Your task to perform on an android device: empty trash in the gmail app Image 0: 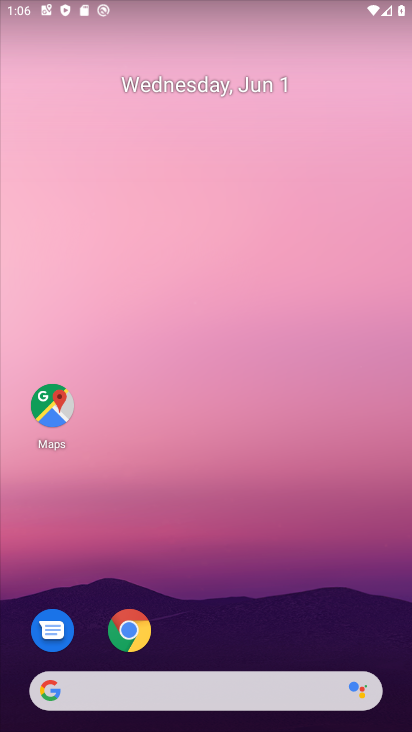
Step 0: press home button
Your task to perform on an android device: empty trash in the gmail app Image 1: 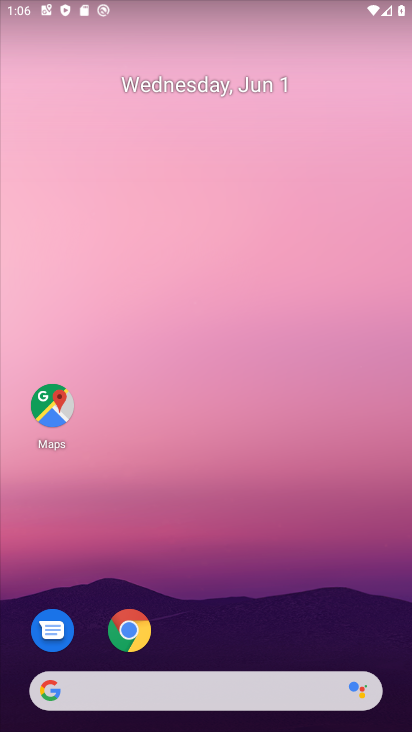
Step 1: drag from (213, 625) to (261, 51)
Your task to perform on an android device: empty trash in the gmail app Image 2: 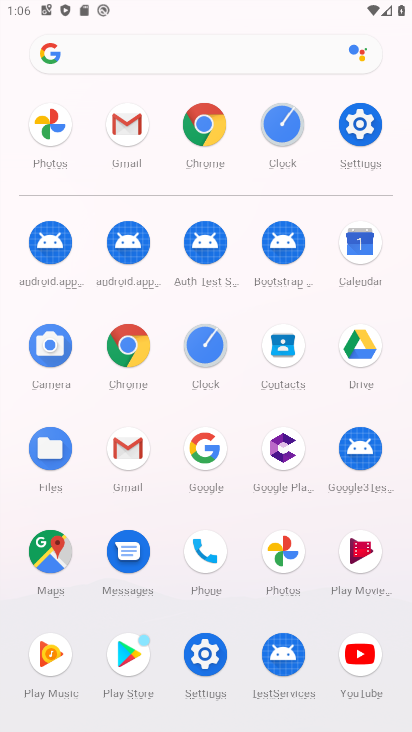
Step 2: click (126, 132)
Your task to perform on an android device: empty trash in the gmail app Image 3: 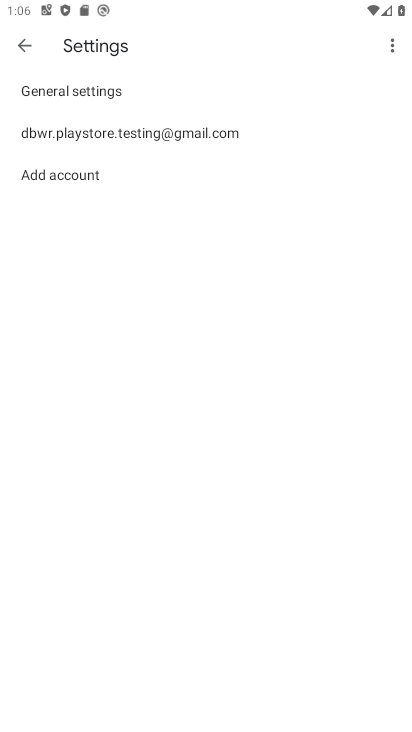
Step 3: click (23, 46)
Your task to perform on an android device: empty trash in the gmail app Image 4: 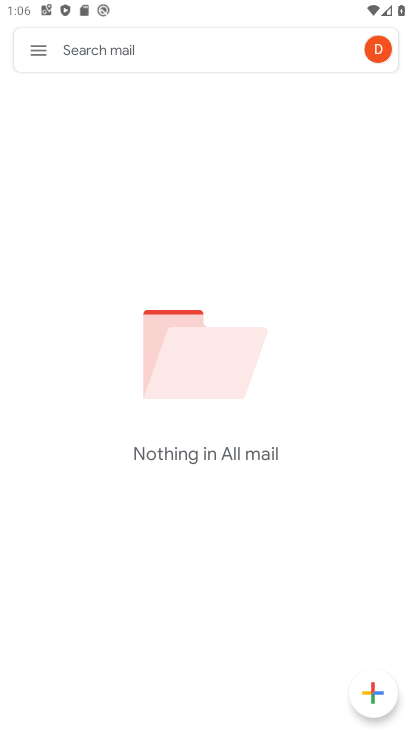
Step 4: click (30, 49)
Your task to perform on an android device: empty trash in the gmail app Image 5: 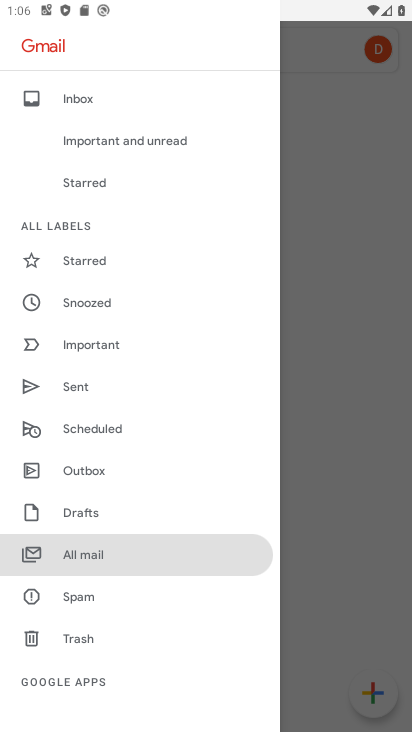
Step 5: click (74, 638)
Your task to perform on an android device: empty trash in the gmail app Image 6: 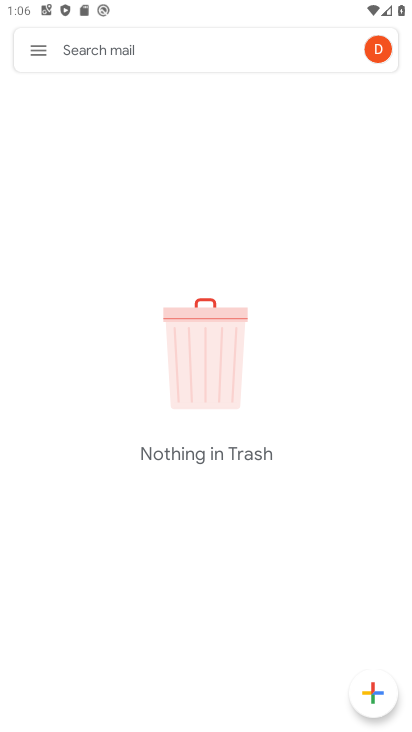
Step 6: task complete